Your task to perform on an android device: make emails show in primary in the gmail app Image 0: 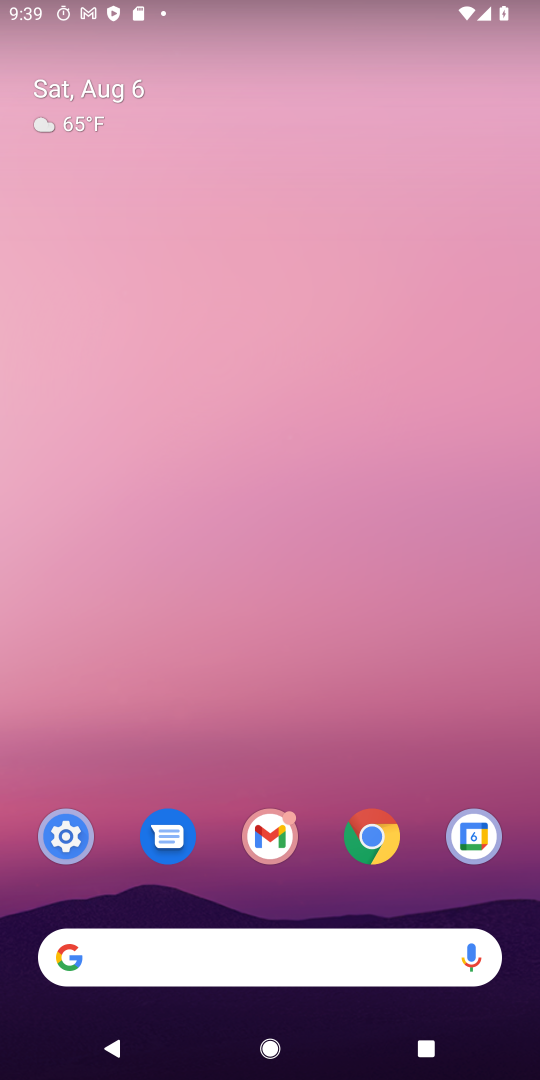
Step 0: drag from (466, 870) to (237, 129)
Your task to perform on an android device: make emails show in primary in the gmail app Image 1: 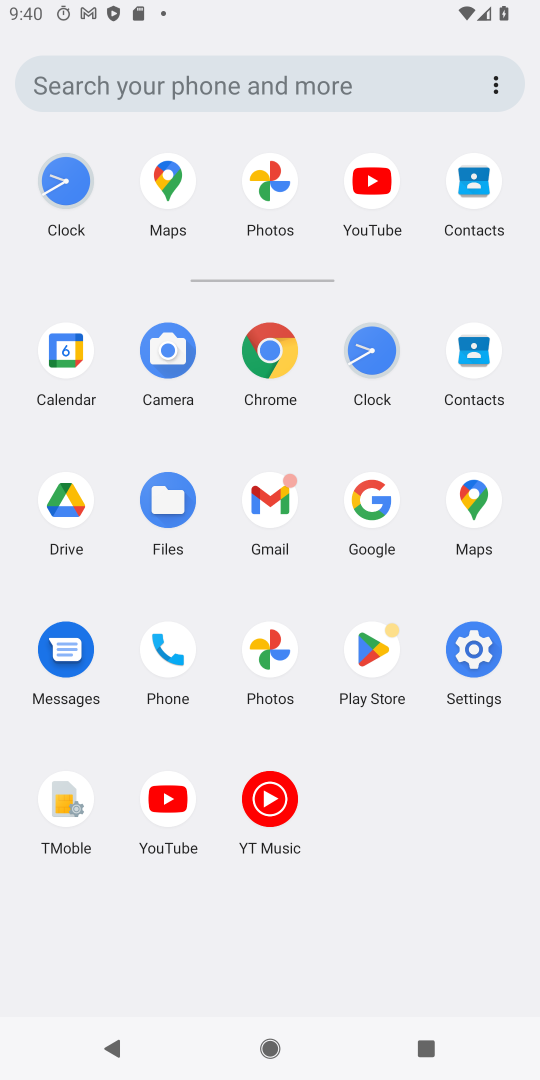
Step 1: click (246, 501)
Your task to perform on an android device: make emails show in primary in the gmail app Image 2: 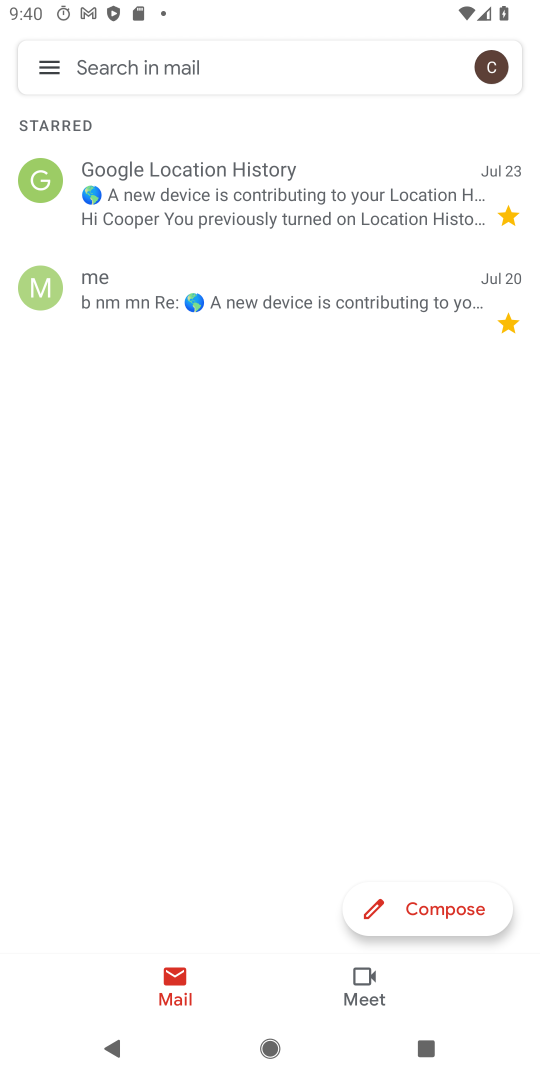
Step 2: task complete